Your task to perform on an android device: Show me some nice wallpapers for my computer Image 0: 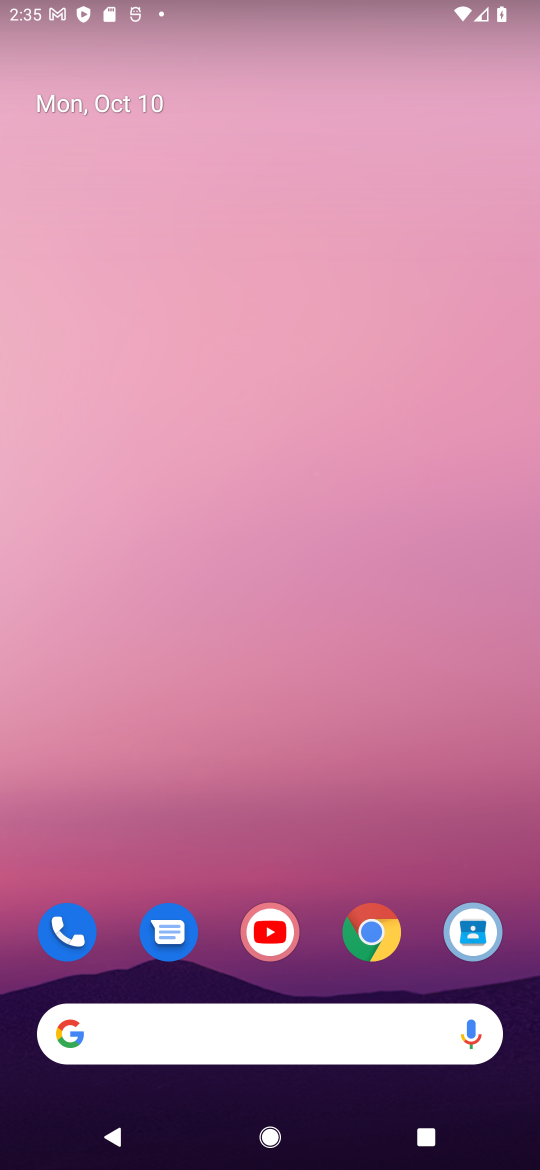
Step 0: press home button
Your task to perform on an android device: Show me some nice wallpapers for my computer Image 1: 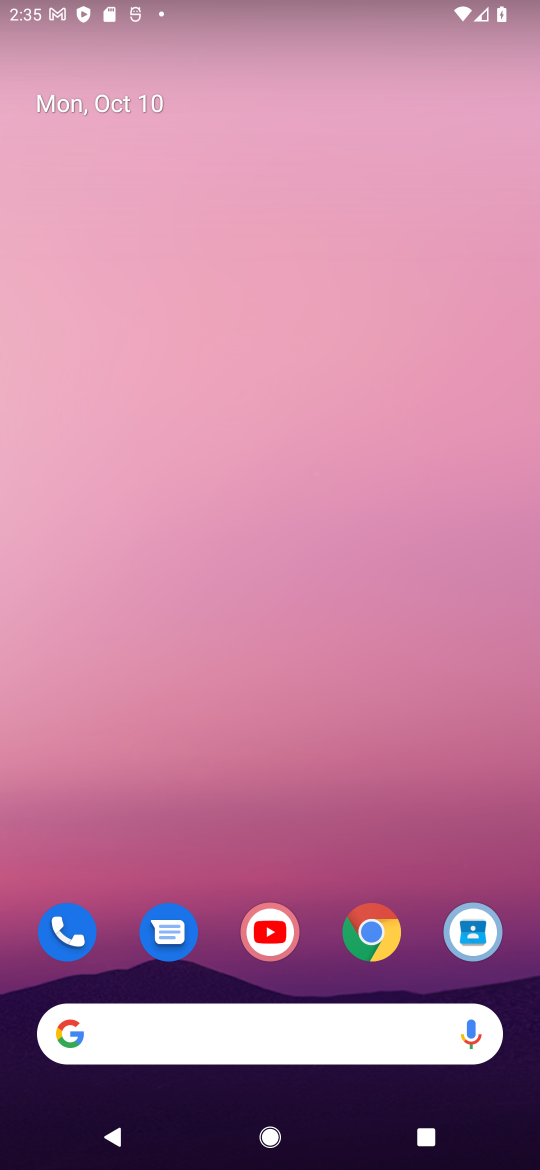
Step 1: click (228, 1024)
Your task to perform on an android device: Show me some nice wallpapers for my computer Image 2: 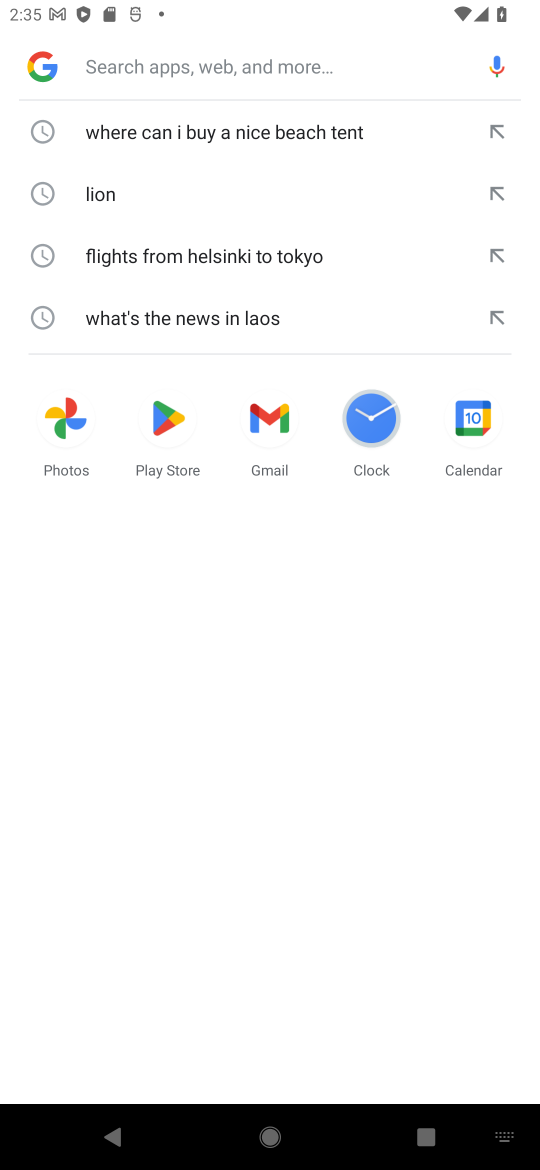
Step 2: type "Show me some nice wallpapers for my computer"
Your task to perform on an android device: Show me some nice wallpapers for my computer Image 3: 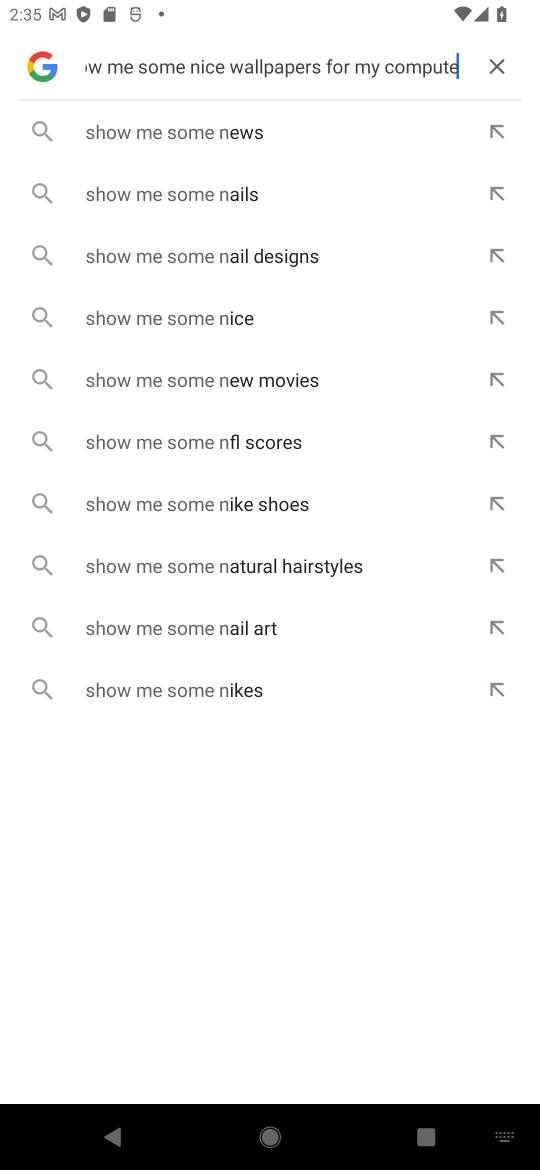
Step 3: press enter
Your task to perform on an android device: Show me some nice wallpapers for my computer Image 4: 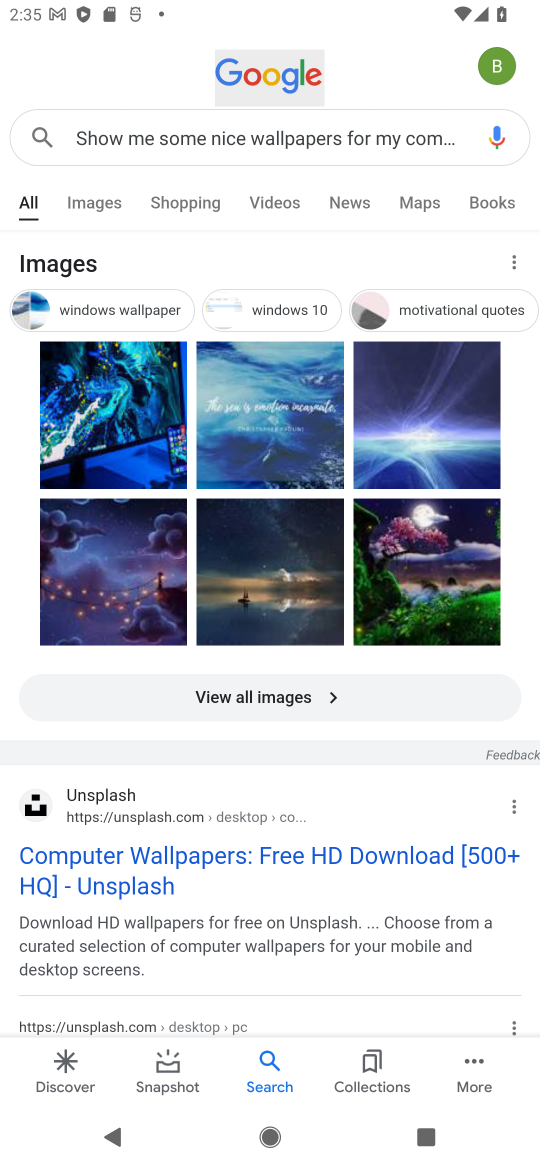
Step 4: click (248, 698)
Your task to perform on an android device: Show me some nice wallpapers for my computer Image 5: 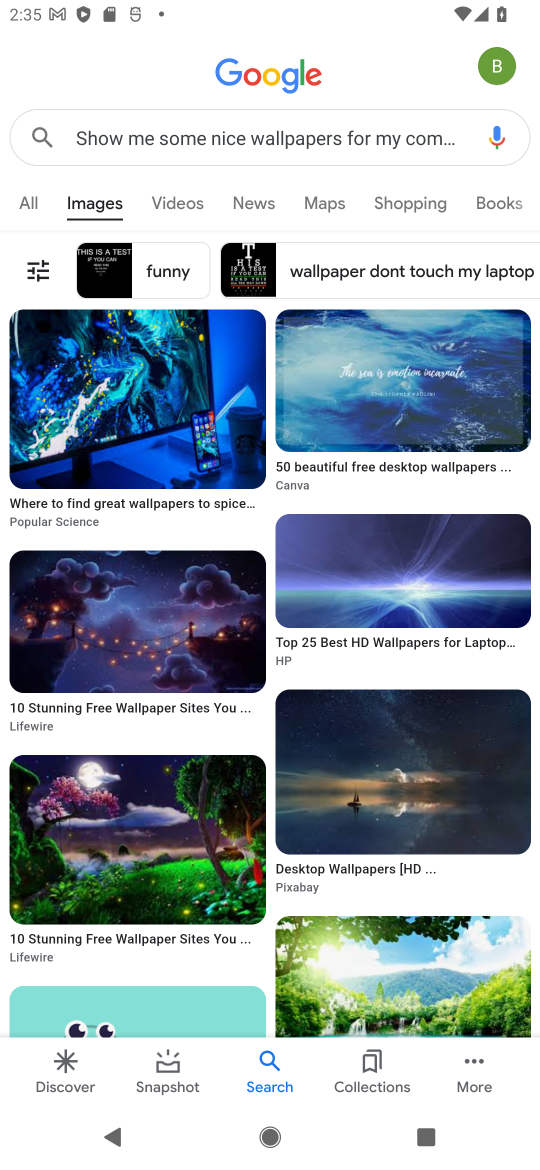
Step 5: task complete